Your task to perform on an android device: Open the most recent email and forward to: 'tau.tyrannosaubr.1654798856749@gmail.com'. Image 0: 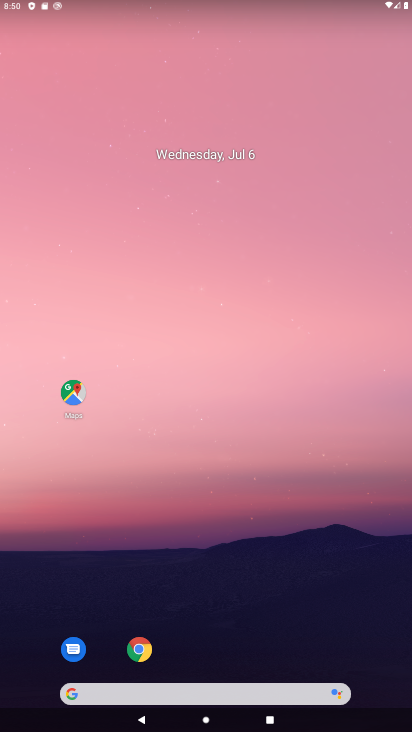
Step 0: drag from (369, 537) to (380, 24)
Your task to perform on an android device: Open the most recent email and forward to: 'tau.tyrannosaubr.1654798856749@gmail.com'. Image 1: 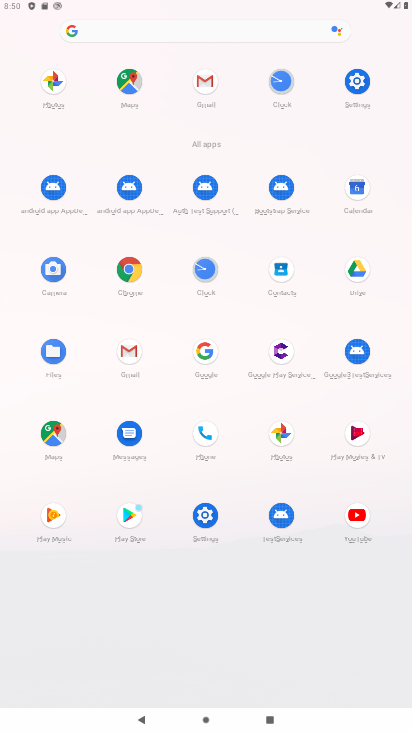
Step 1: click (196, 95)
Your task to perform on an android device: Open the most recent email and forward to: 'tau.tyrannosaubr.1654798856749@gmail.com'. Image 2: 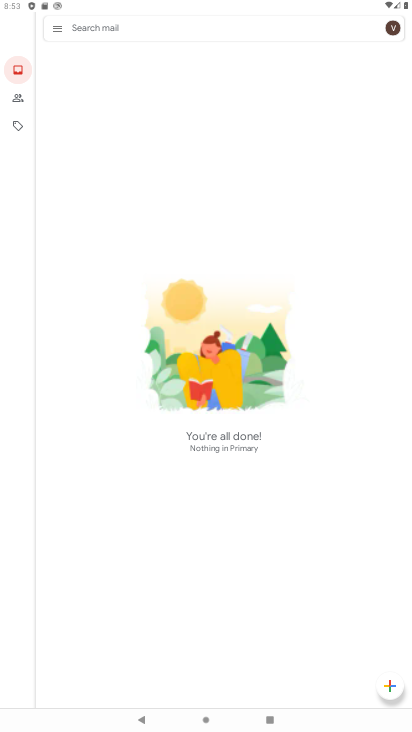
Step 2: task complete